Your task to perform on an android device: change keyboard looks Image 0: 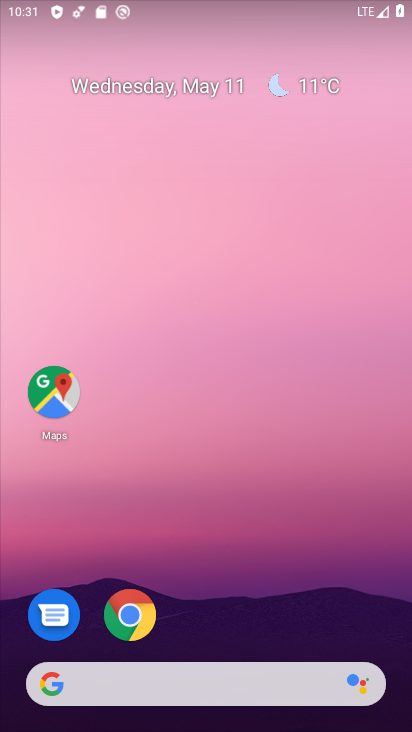
Step 0: drag from (224, 561) to (316, 158)
Your task to perform on an android device: change keyboard looks Image 1: 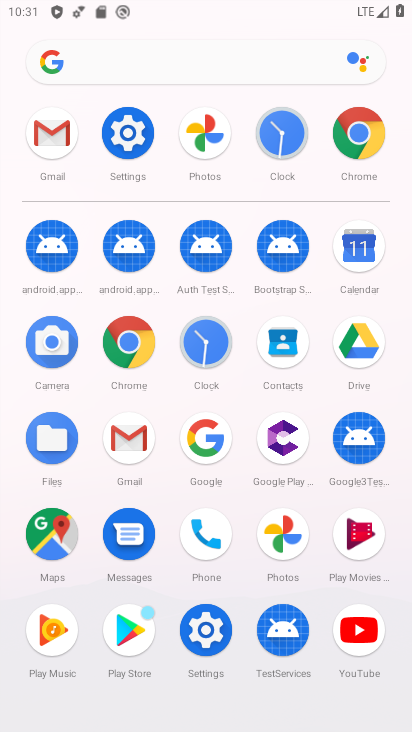
Step 1: click (132, 128)
Your task to perform on an android device: change keyboard looks Image 2: 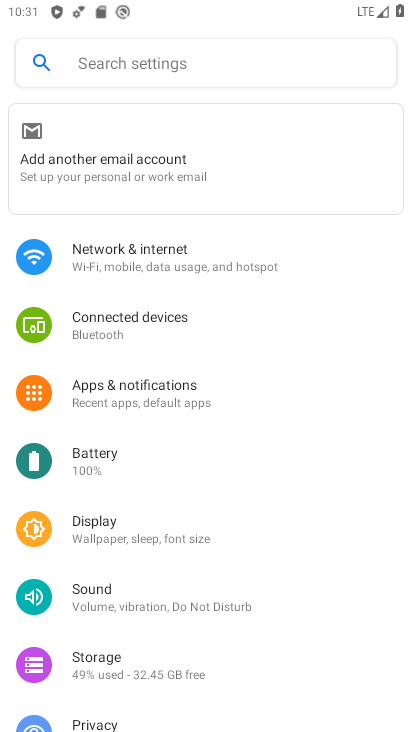
Step 2: drag from (208, 530) to (324, 246)
Your task to perform on an android device: change keyboard looks Image 3: 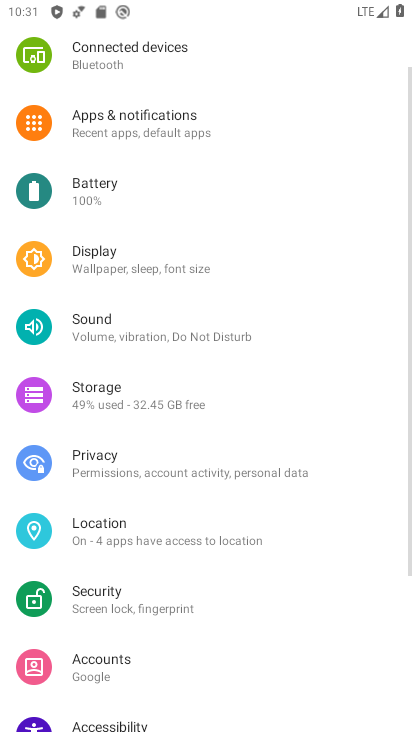
Step 3: drag from (120, 530) to (324, 156)
Your task to perform on an android device: change keyboard looks Image 4: 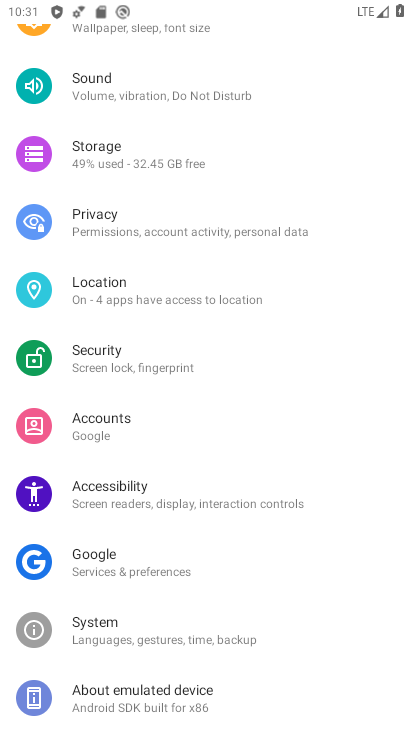
Step 4: click (105, 640)
Your task to perform on an android device: change keyboard looks Image 5: 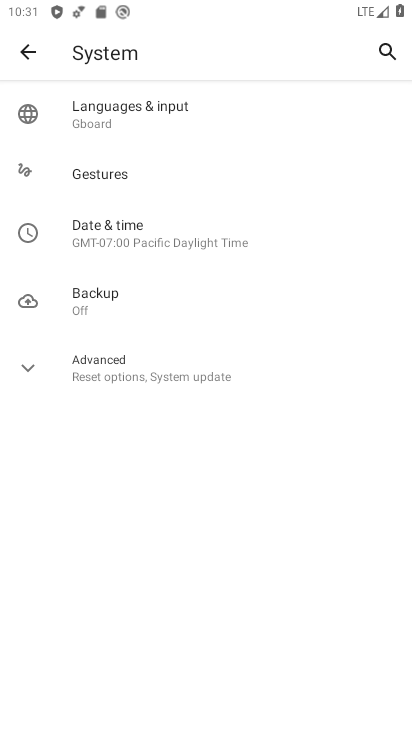
Step 5: click (183, 106)
Your task to perform on an android device: change keyboard looks Image 6: 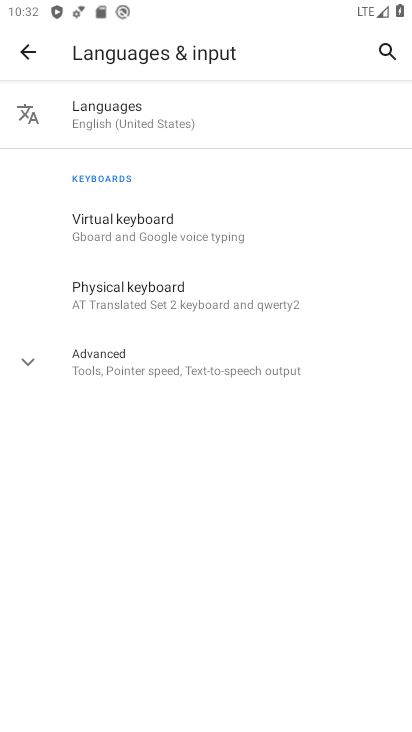
Step 6: click (122, 212)
Your task to perform on an android device: change keyboard looks Image 7: 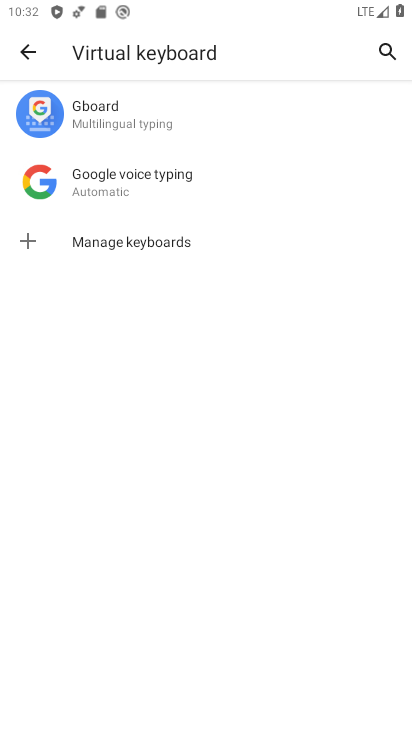
Step 7: click (109, 117)
Your task to perform on an android device: change keyboard looks Image 8: 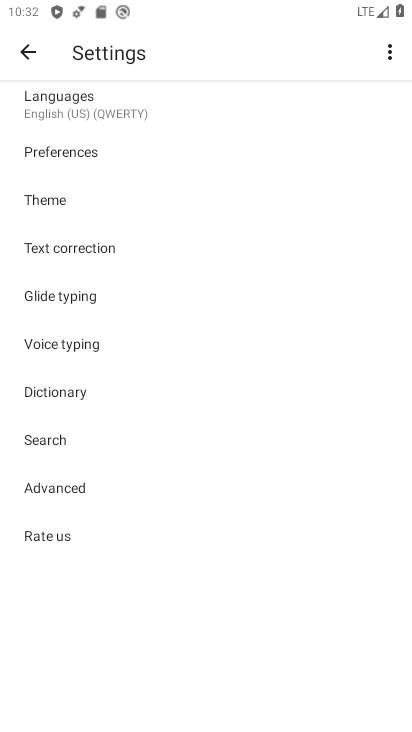
Step 8: click (61, 200)
Your task to perform on an android device: change keyboard looks Image 9: 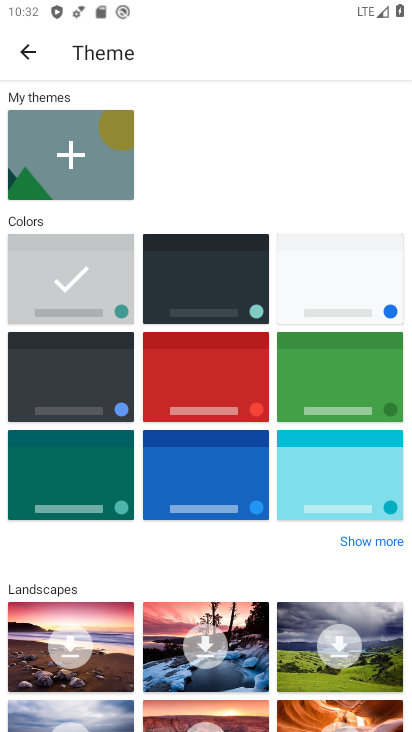
Step 9: click (321, 277)
Your task to perform on an android device: change keyboard looks Image 10: 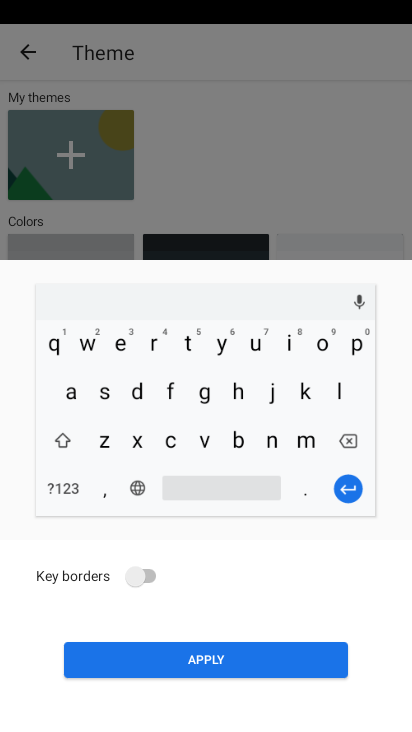
Step 10: click (249, 652)
Your task to perform on an android device: change keyboard looks Image 11: 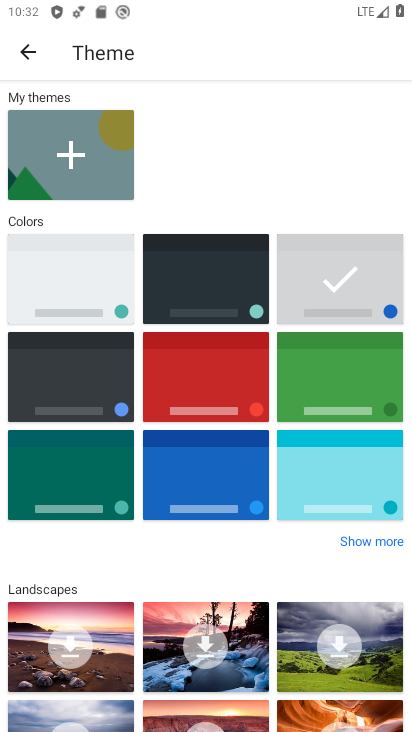
Step 11: task complete